Your task to perform on an android device: Open accessibility settings Image 0: 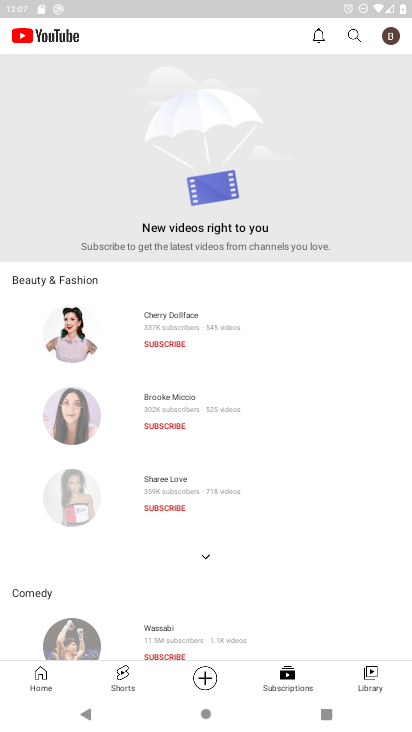
Step 0: press home button
Your task to perform on an android device: Open accessibility settings Image 1: 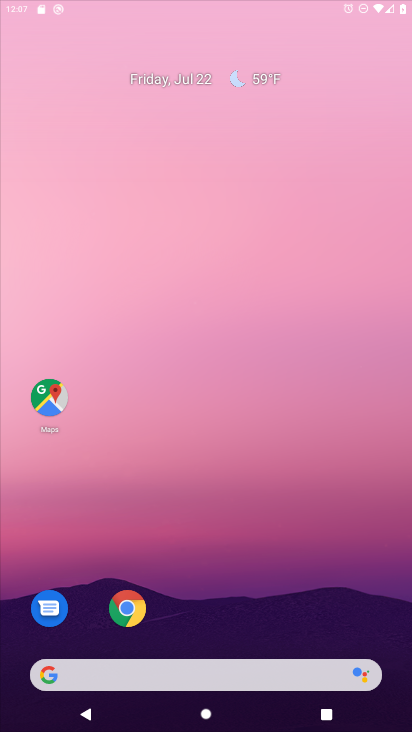
Step 1: drag from (386, 680) to (254, 11)
Your task to perform on an android device: Open accessibility settings Image 2: 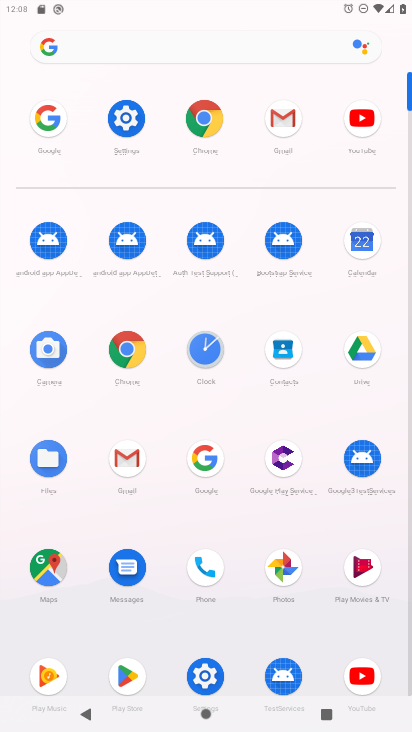
Step 2: click (204, 687)
Your task to perform on an android device: Open accessibility settings Image 3: 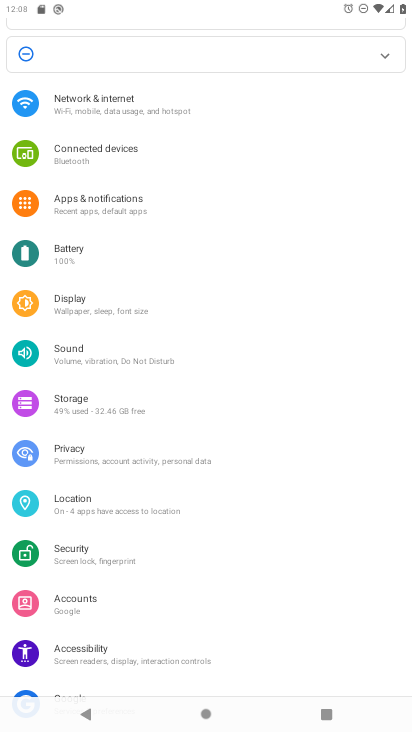
Step 3: click (103, 653)
Your task to perform on an android device: Open accessibility settings Image 4: 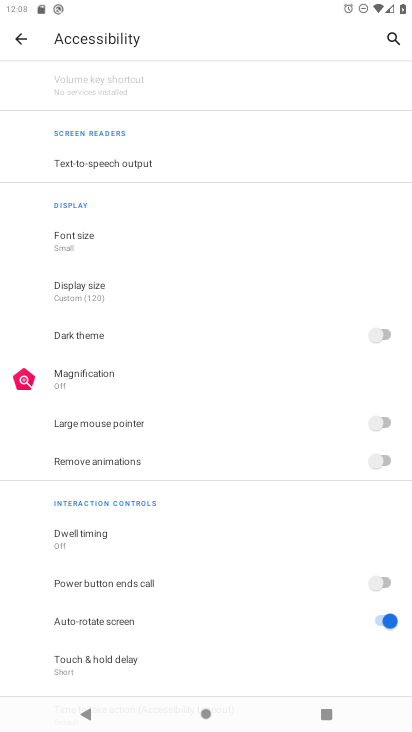
Step 4: task complete